Your task to perform on an android device: change the clock style Image 0: 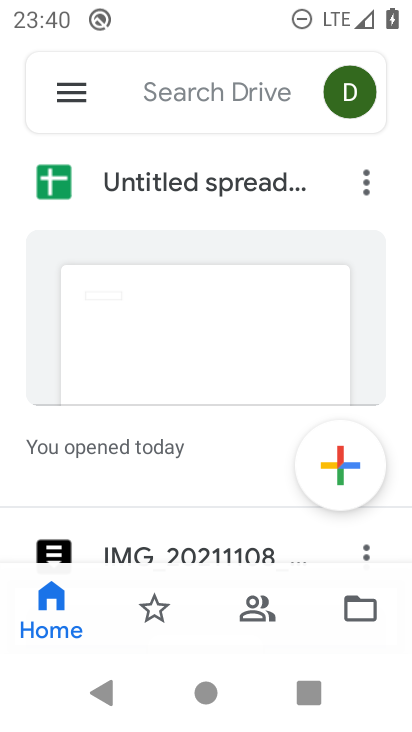
Step 0: drag from (217, 501) to (289, 53)
Your task to perform on an android device: change the clock style Image 1: 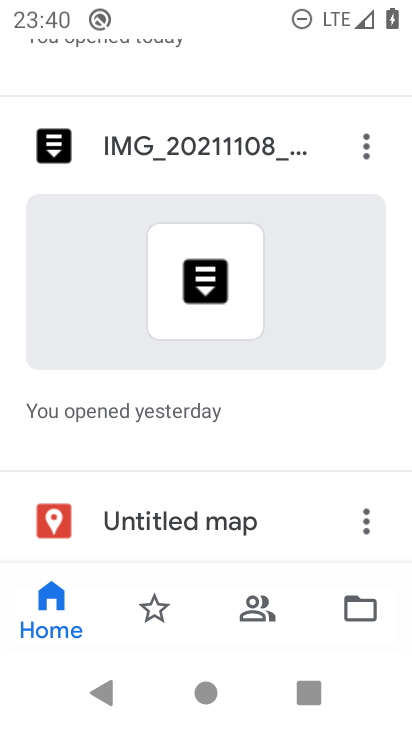
Step 1: press home button
Your task to perform on an android device: change the clock style Image 2: 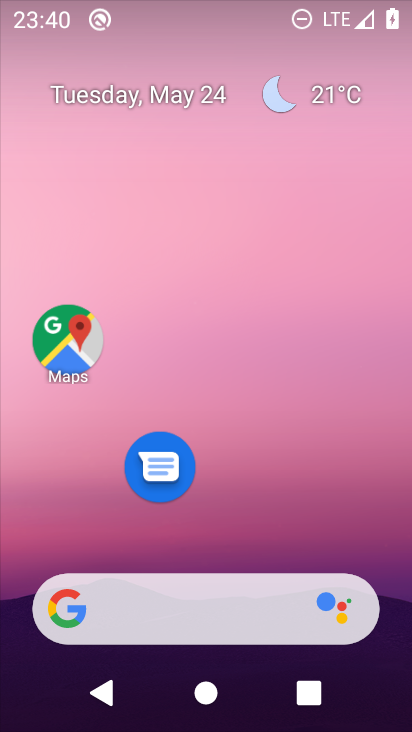
Step 2: drag from (192, 557) to (208, 15)
Your task to perform on an android device: change the clock style Image 3: 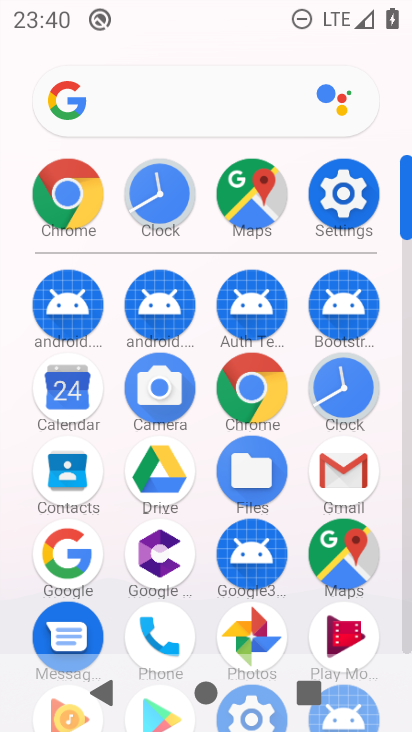
Step 3: click (340, 188)
Your task to perform on an android device: change the clock style Image 4: 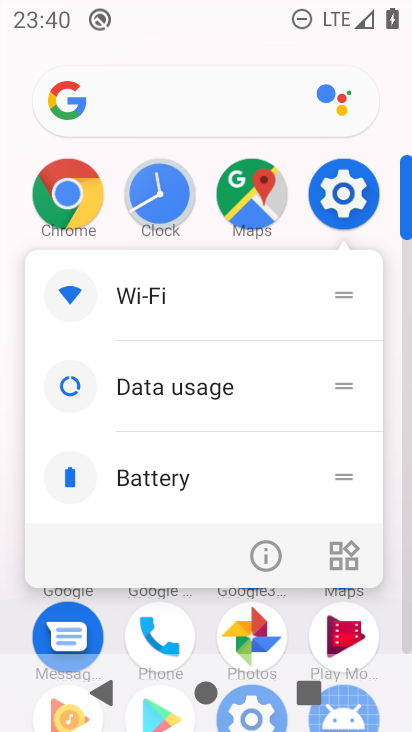
Step 4: click (280, 560)
Your task to perform on an android device: change the clock style Image 5: 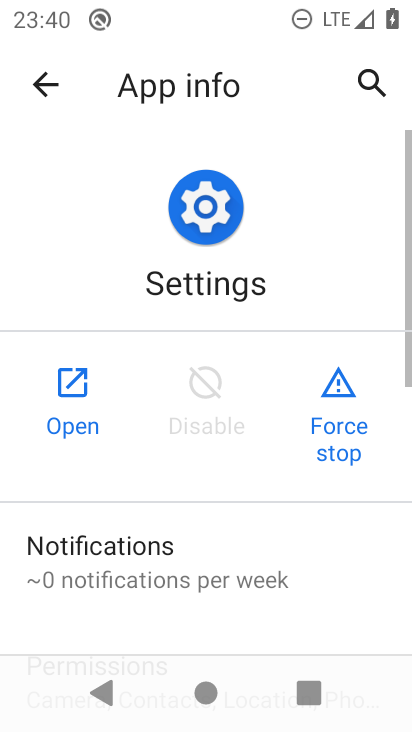
Step 5: drag from (191, 575) to (239, 287)
Your task to perform on an android device: change the clock style Image 6: 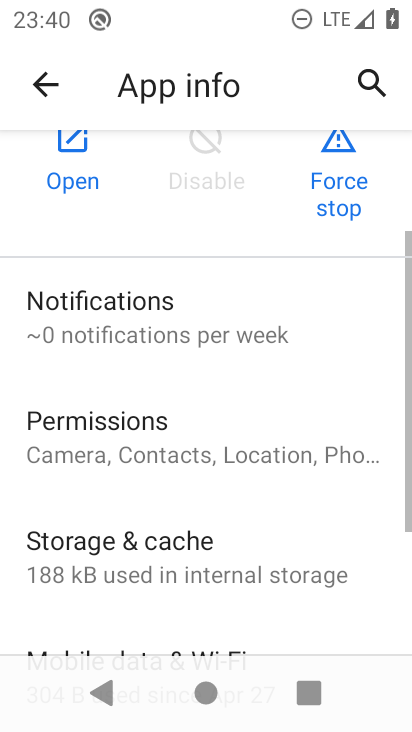
Step 6: drag from (242, 268) to (214, 636)
Your task to perform on an android device: change the clock style Image 7: 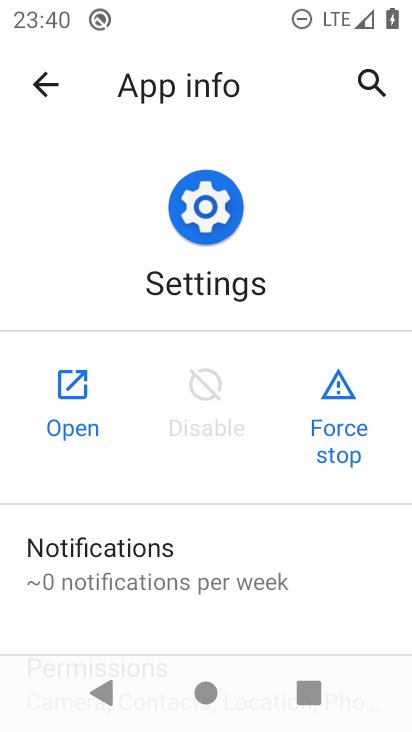
Step 7: click (64, 406)
Your task to perform on an android device: change the clock style Image 8: 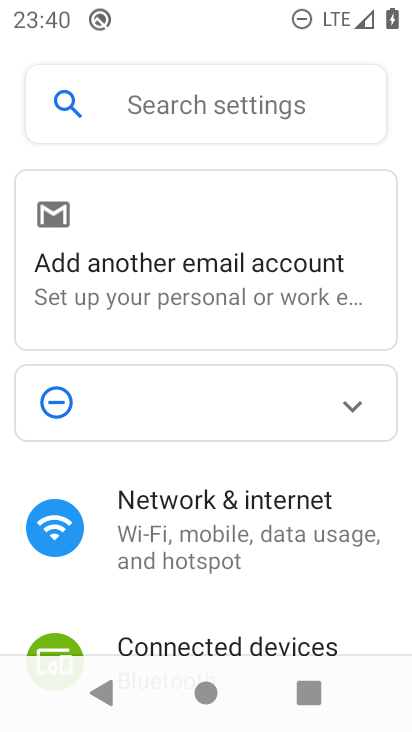
Step 8: drag from (203, 544) to (289, 188)
Your task to perform on an android device: change the clock style Image 9: 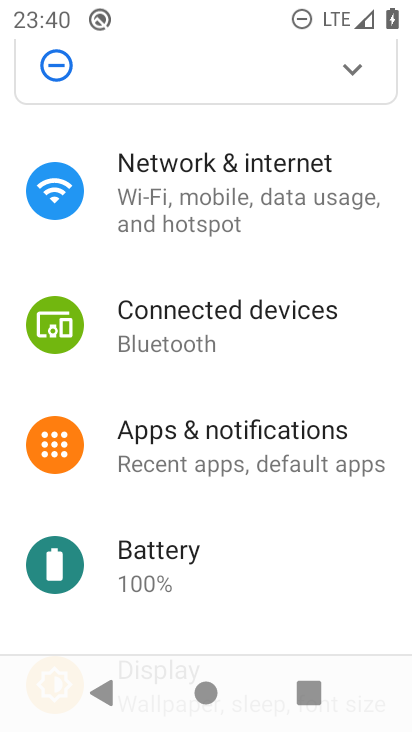
Step 9: press home button
Your task to perform on an android device: change the clock style Image 10: 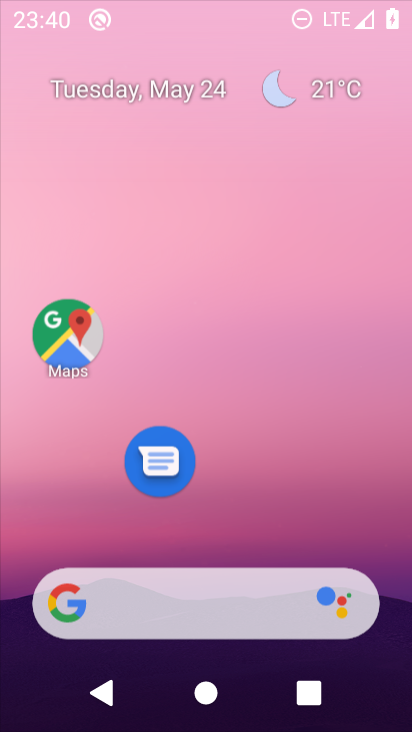
Step 10: drag from (195, 535) to (300, 120)
Your task to perform on an android device: change the clock style Image 11: 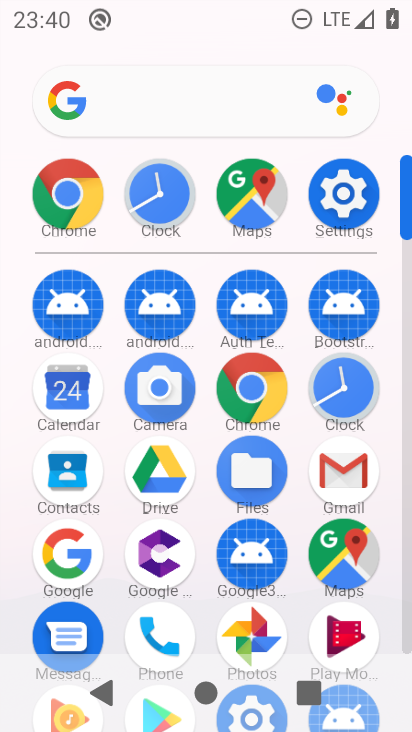
Step 11: click (347, 383)
Your task to perform on an android device: change the clock style Image 12: 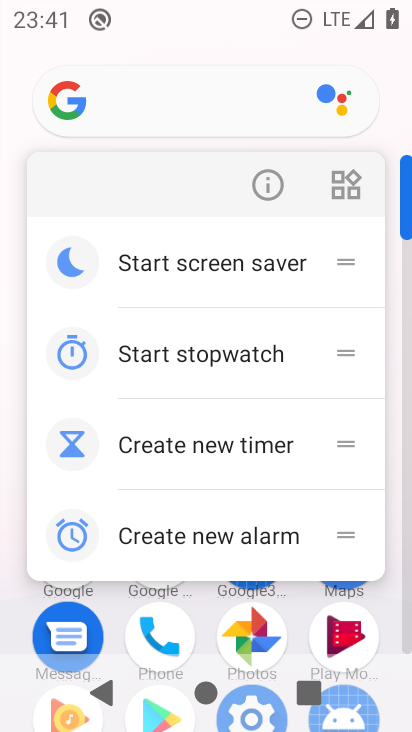
Step 12: click (262, 187)
Your task to perform on an android device: change the clock style Image 13: 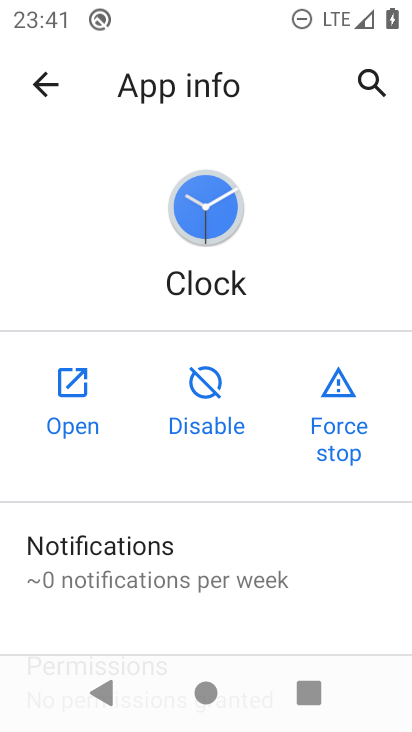
Step 13: click (82, 403)
Your task to perform on an android device: change the clock style Image 14: 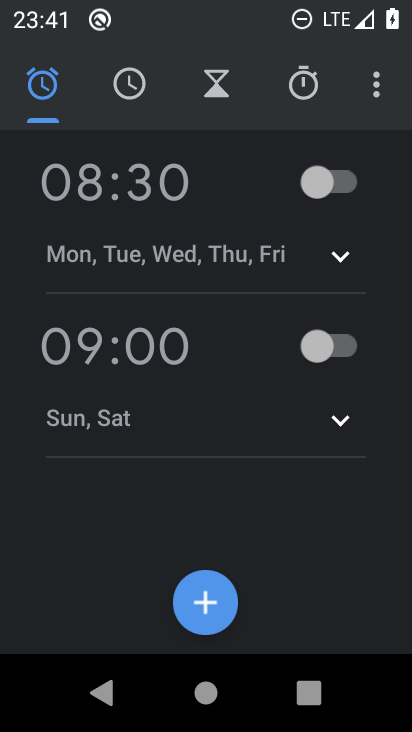
Step 14: click (379, 88)
Your task to perform on an android device: change the clock style Image 15: 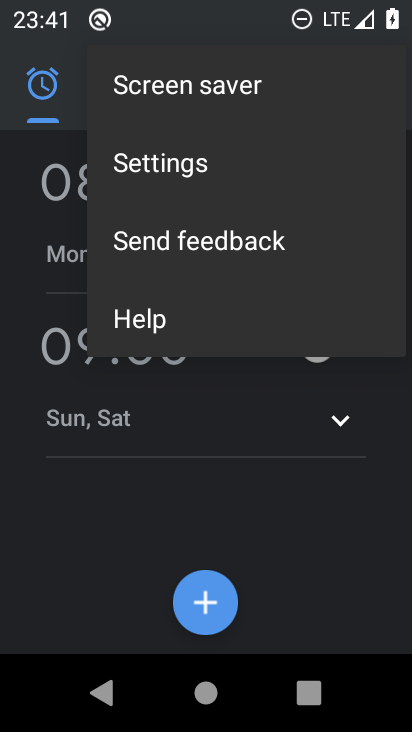
Step 15: click (225, 163)
Your task to perform on an android device: change the clock style Image 16: 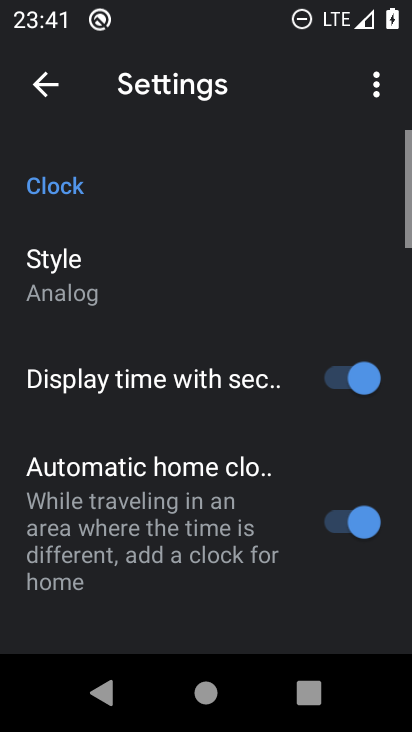
Step 16: click (71, 276)
Your task to perform on an android device: change the clock style Image 17: 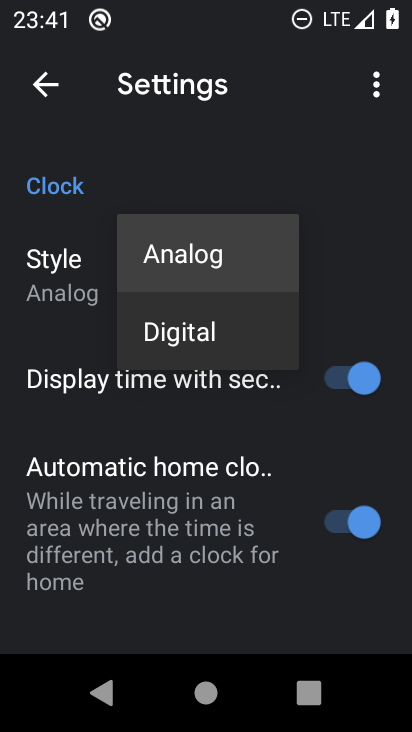
Step 17: click (187, 326)
Your task to perform on an android device: change the clock style Image 18: 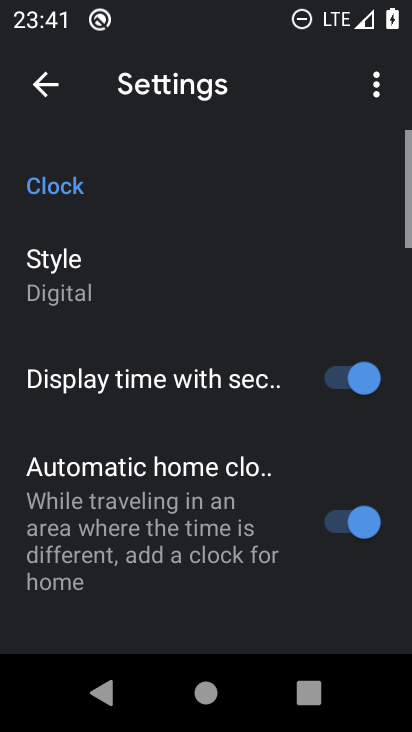
Step 18: task complete